Your task to perform on an android device: add a contact Image 0: 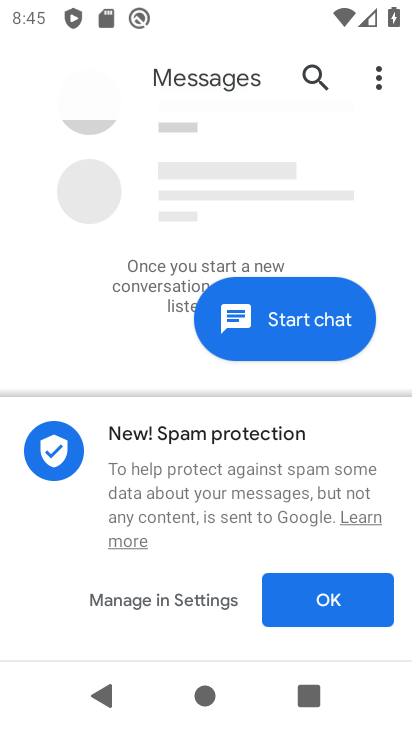
Step 0: press back button
Your task to perform on an android device: add a contact Image 1: 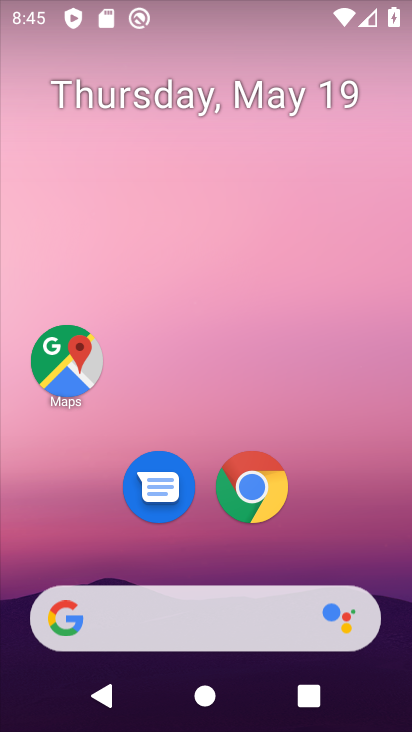
Step 1: drag from (175, 497) to (265, 108)
Your task to perform on an android device: add a contact Image 2: 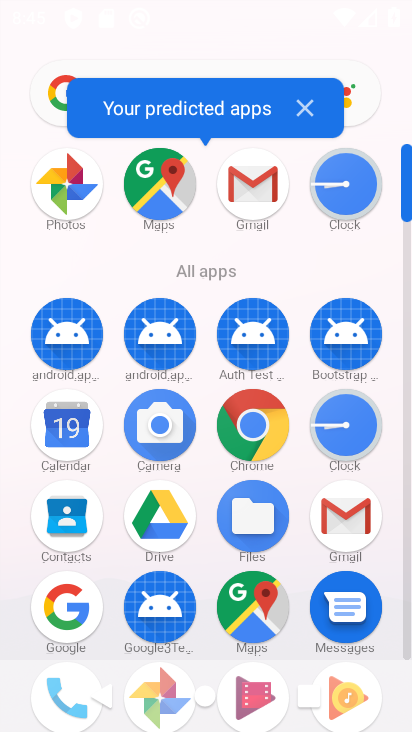
Step 2: click (86, 512)
Your task to perform on an android device: add a contact Image 3: 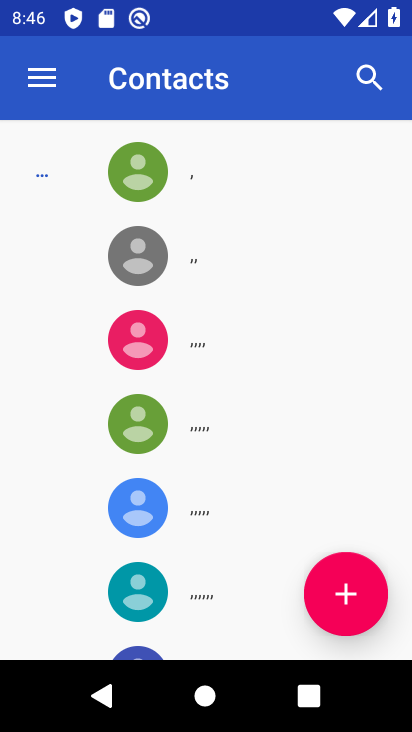
Step 3: click (336, 599)
Your task to perform on an android device: add a contact Image 4: 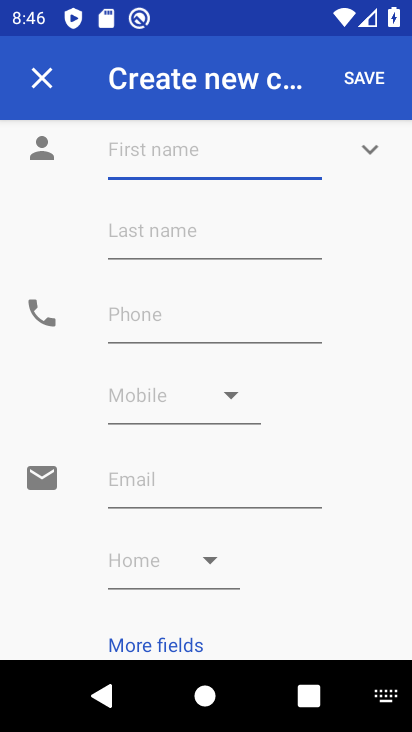
Step 4: type "hfhfv"
Your task to perform on an android device: add a contact Image 5: 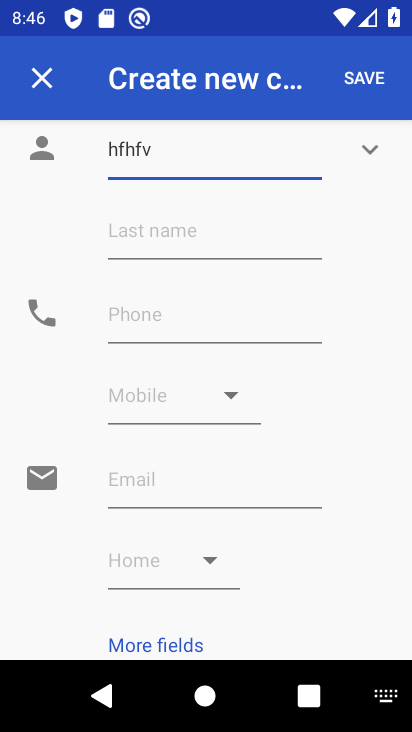
Step 5: click (180, 306)
Your task to perform on an android device: add a contact Image 6: 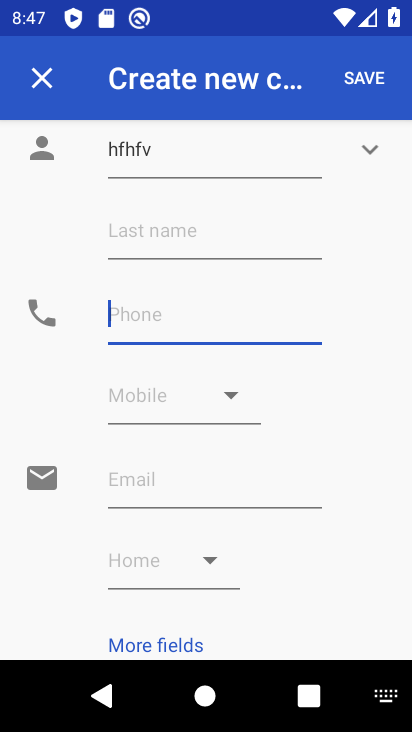
Step 6: type "87686"
Your task to perform on an android device: add a contact Image 7: 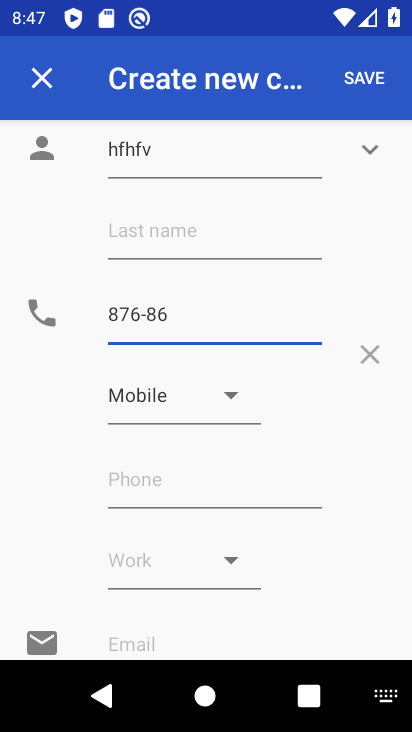
Step 7: click (356, 86)
Your task to perform on an android device: add a contact Image 8: 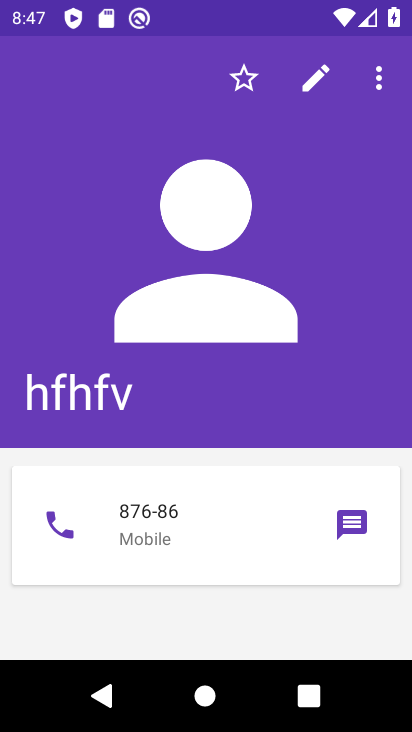
Step 8: task complete